Your task to perform on an android device: Open Google Image 0: 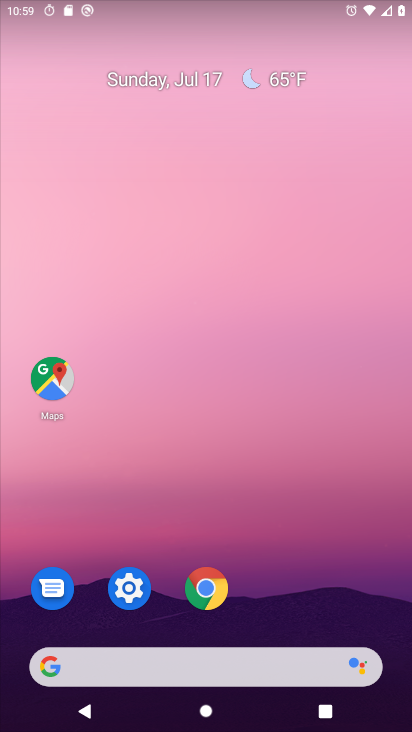
Step 0: drag from (221, 723) to (154, 193)
Your task to perform on an android device: Open Google Image 1: 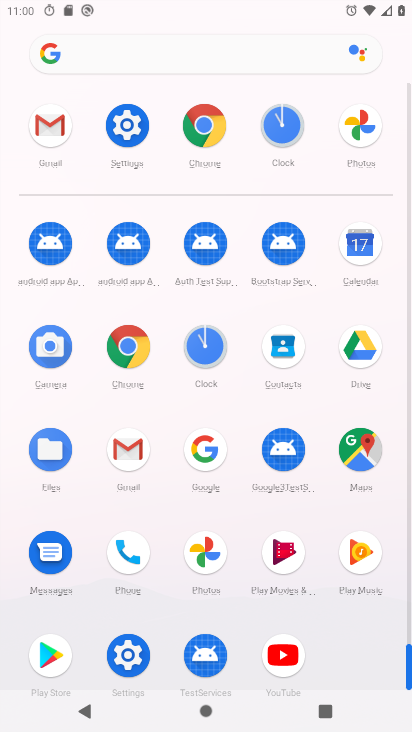
Step 1: click (199, 454)
Your task to perform on an android device: Open Google Image 2: 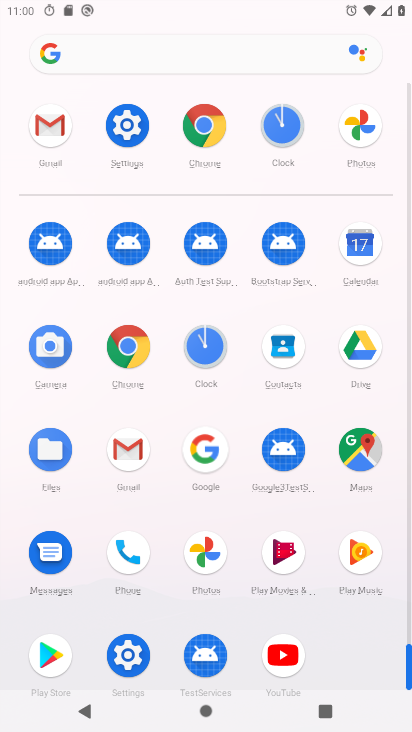
Step 2: click (204, 452)
Your task to perform on an android device: Open Google Image 3: 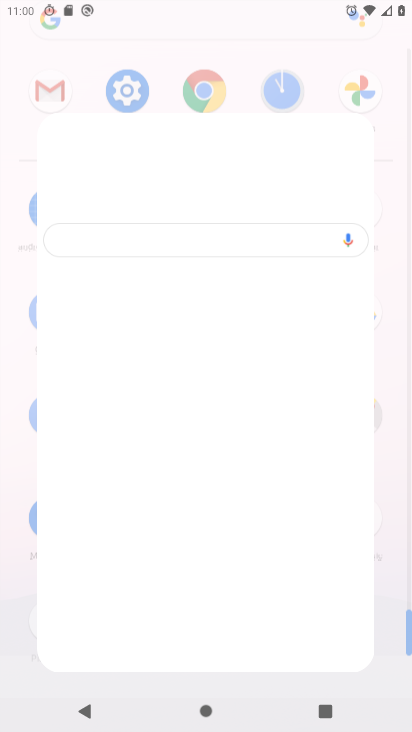
Step 3: click (205, 453)
Your task to perform on an android device: Open Google Image 4: 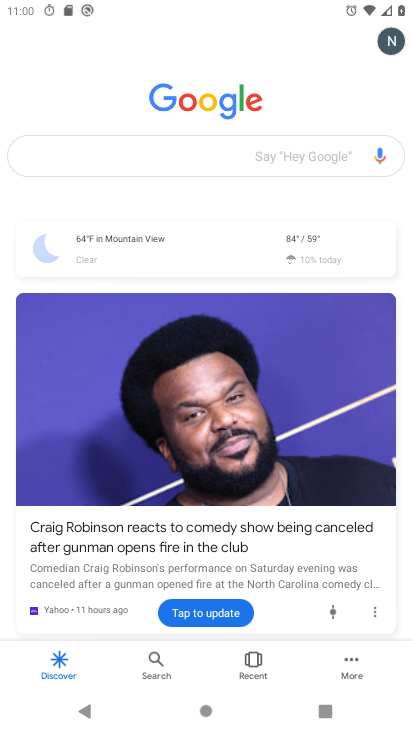
Step 4: click (390, 46)
Your task to perform on an android device: Open Google Image 5: 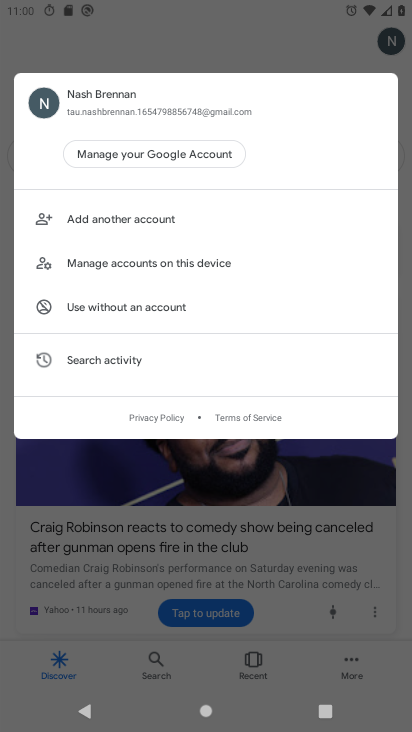
Step 5: task complete